Your task to perform on an android device: Open calendar and show me the second week of next month Image 0: 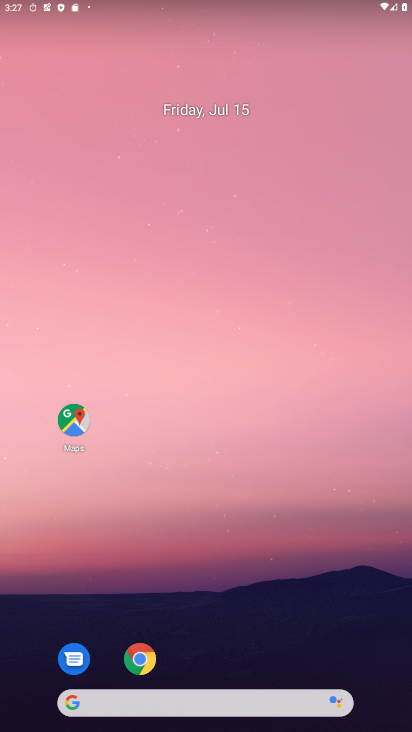
Step 0: drag from (243, 621) to (285, 333)
Your task to perform on an android device: Open calendar and show me the second week of next month Image 1: 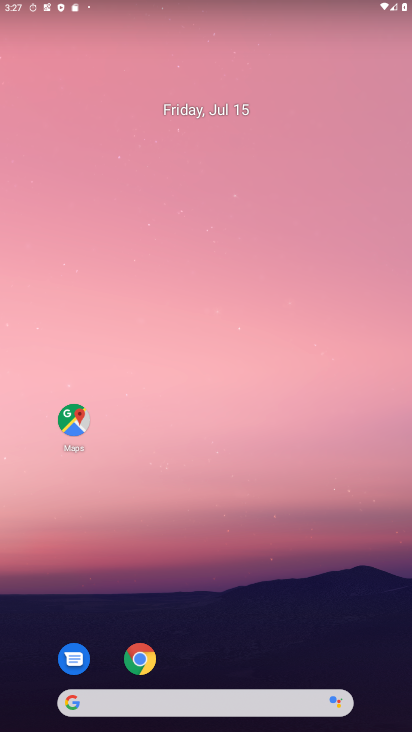
Step 1: drag from (302, 598) to (298, 194)
Your task to perform on an android device: Open calendar and show me the second week of next month Image 2: 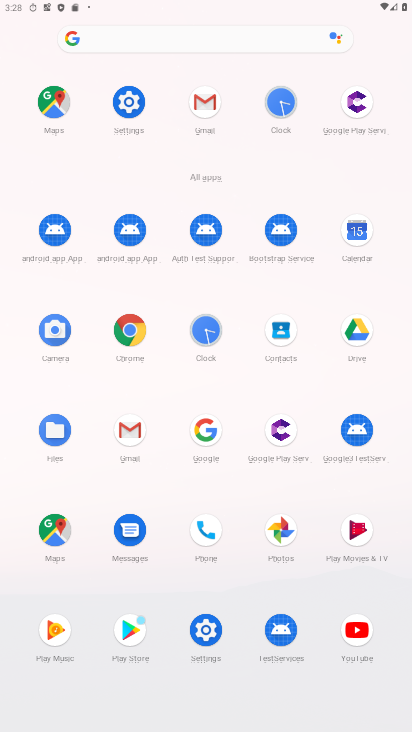
Step 2: click (364, 238)
Your task to perform on an android device: Open calendar and show me the second week of next month Image 3: 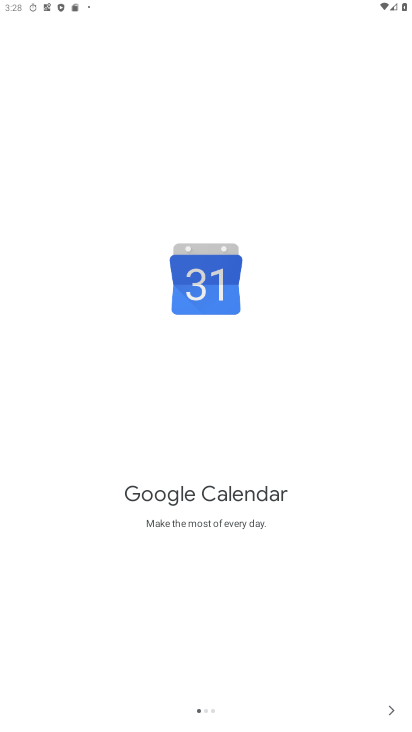
Step 3: click (390, 714)
Your task to perform on an android device: Open calendar and show me the second week of next month Image 4: 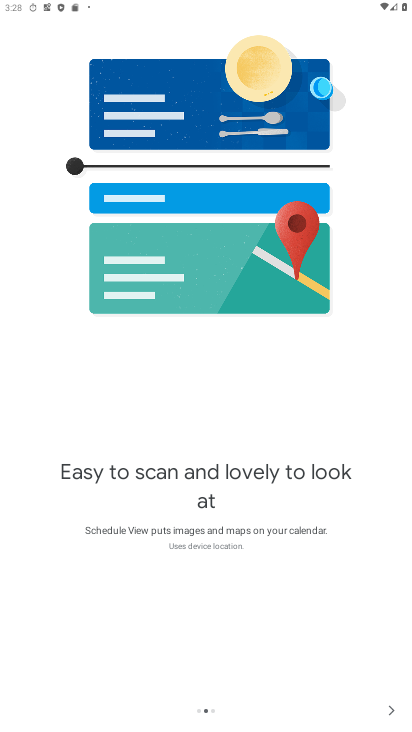
Step 4: click (390, 714)
Your task to perform on an android device: Open calendar and show me the second week of next month Image 5: 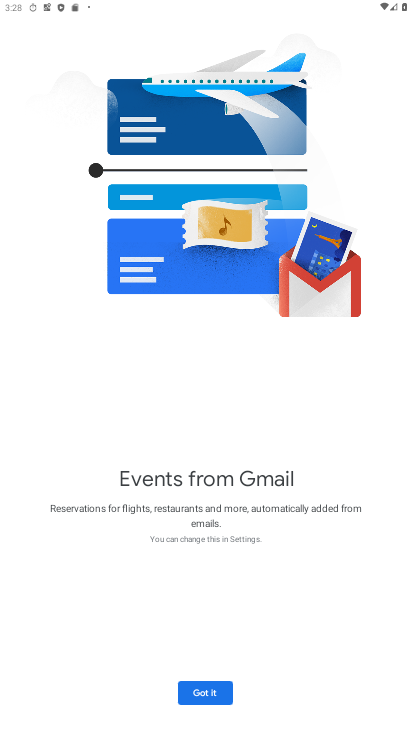
Step 5: click (196, 696)
Your task to perform on an android device: Open calendar and show me the second week of next month Image 6: 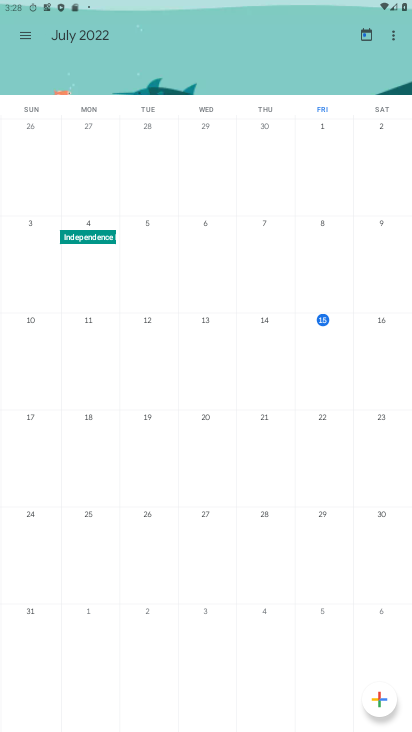
Step 6: drag from (406, 238) to (21, 258)
Your task to perform on an android device: Open calendar and show me the second week of next month Image 7: 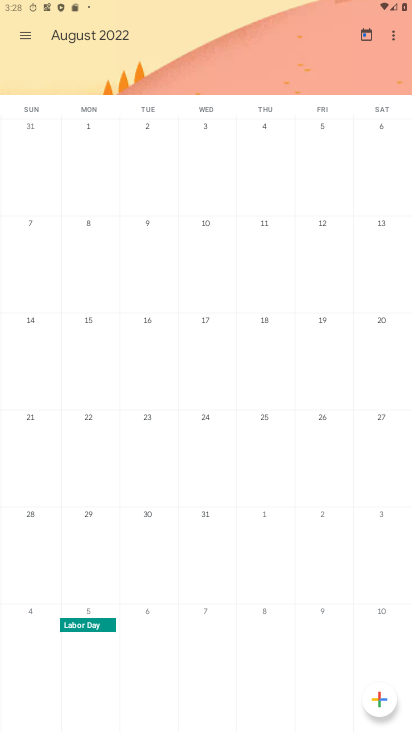
Step 7: click (44, 255)
Your task to perform on an android device: Open calendar and show me the second week of next month Image 8: 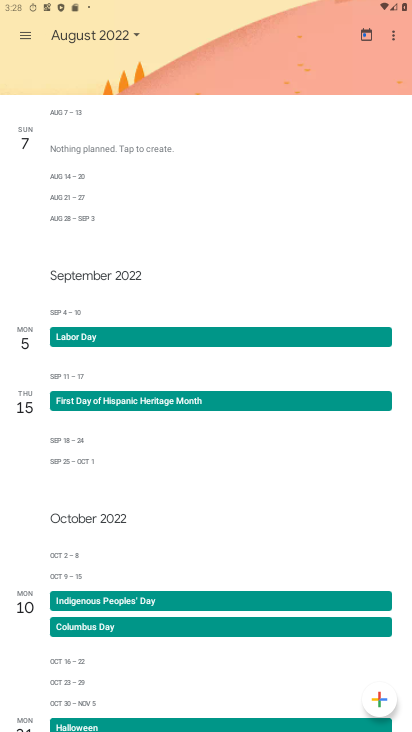
Step 8: task complete